Your task to perform on an android device: Turn on the flashlight Image 0: 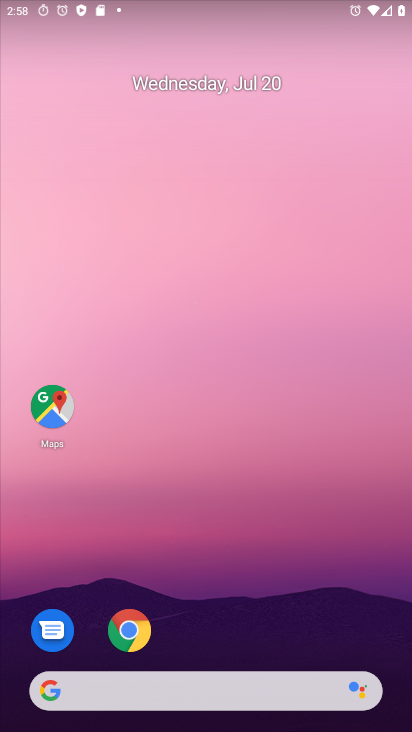
Step 0: drag from (92, 530) to (299, 147)
Your task to perform on an android device: Turn on the flashlight Image 1: 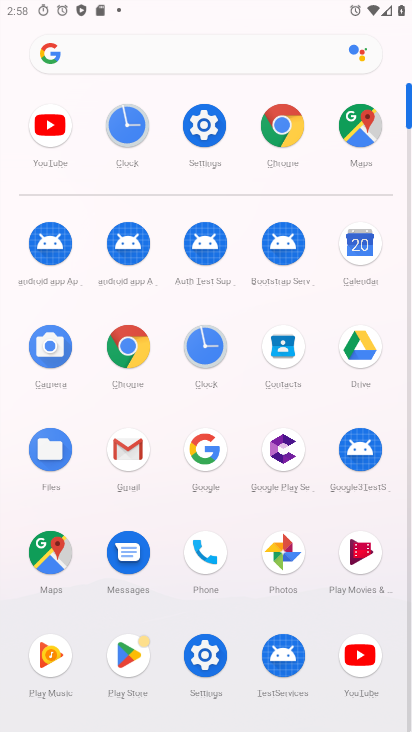
Step 1: click (210, 132)
Your task to perform on an android device: Turn on the flashlight Image 2: 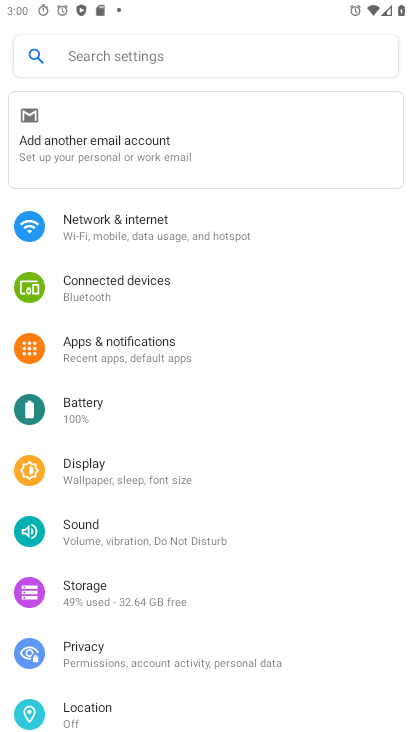
Step 2: task complete